Your task to perform on an android device: toggle priority inbox in the gmail app Image 0: 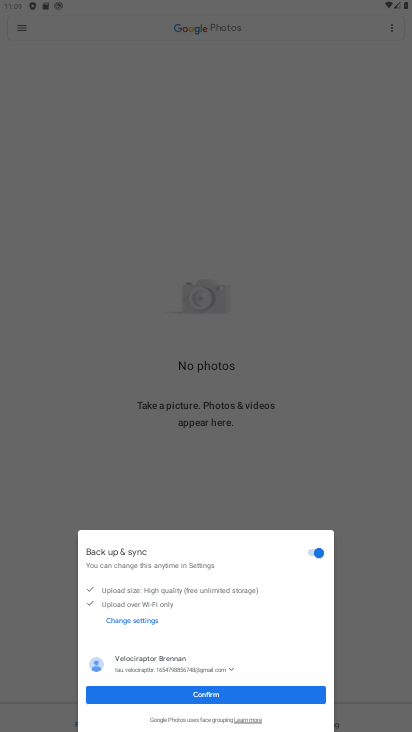
Step 0: press home button
Your task to perform on an android device: toggle priority inbox in the gmail app Image 1: 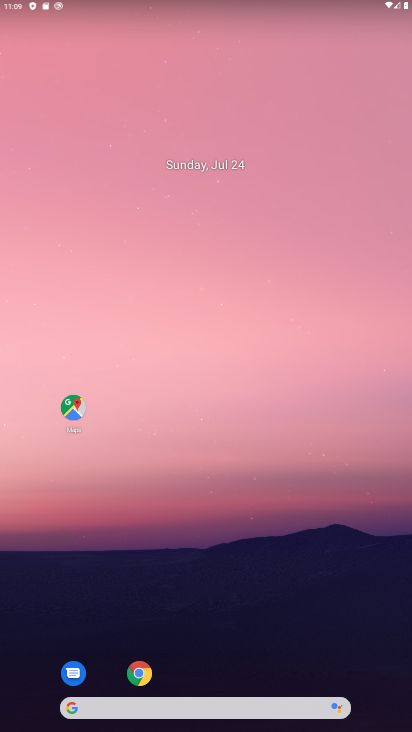
Step 1: drag from (197, 706) to (191, 207)
Your task to perform on an android device: toggle priority inbox in the gmail app Image 2: 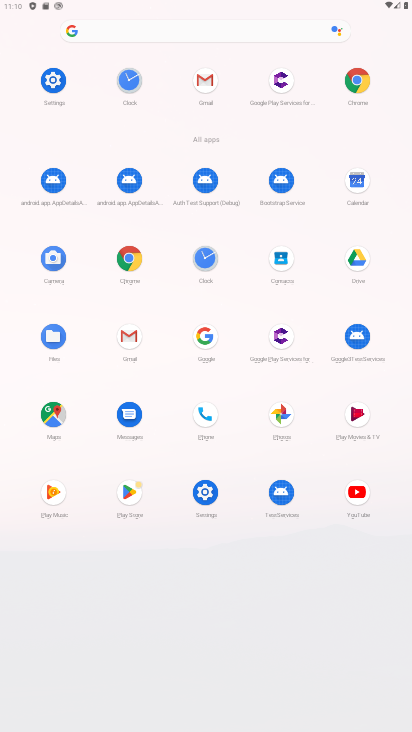
Step 2: click (206, 79)
Your task to perform on an android device: toggle priority inbox in the gmail app Image 3: 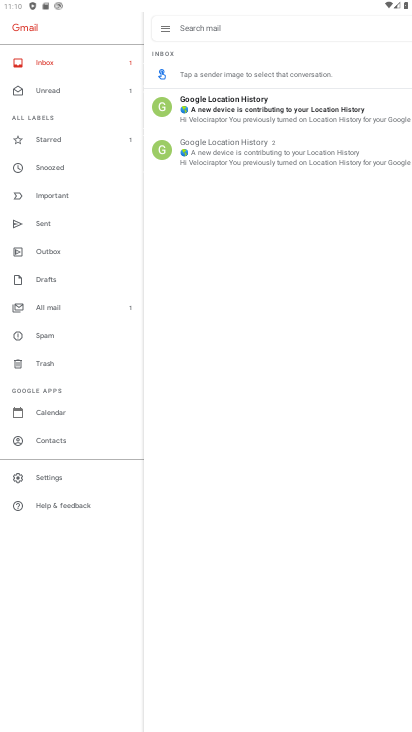
Step 3: click (46, 478)
Your task to perform on an android device: toggle priority inbox in the gmail app Image 4: 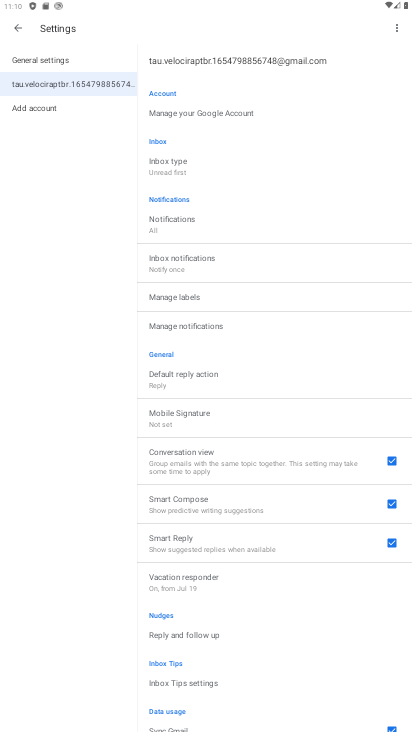
Step 4: click (177, 176)
Your task to perform on an android device: toggle priority inbox in the gmail app Image 5: 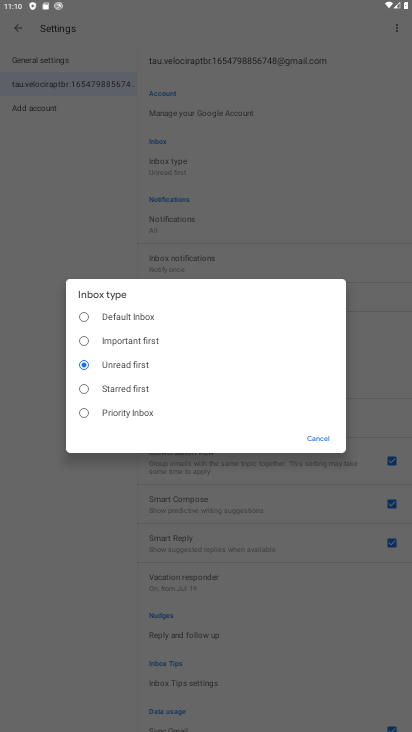
Step 5: click (83, 415)
Your task to perform on an android device: toggle priority inbox in the gmail app Image 6: 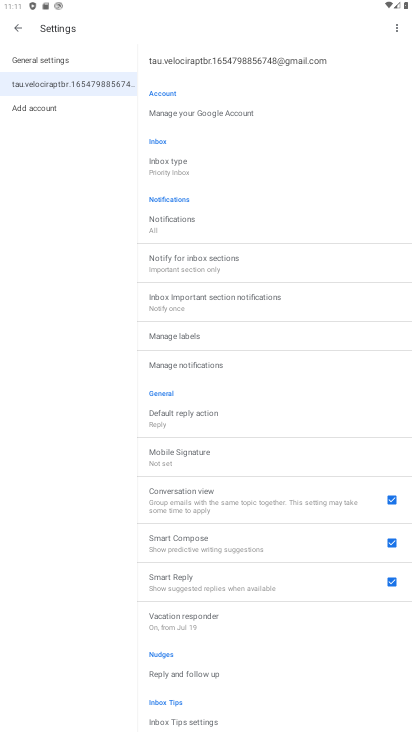
Step 6: task complete